Your task to perform on an android device: change the clock display to analog Image 0: 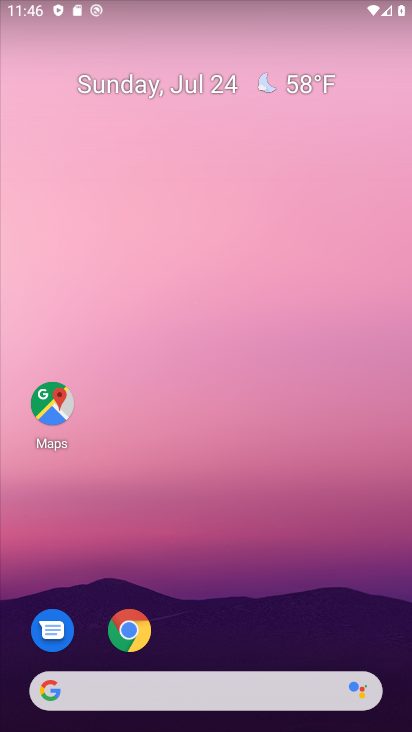
Step 0: drag from (260, 651) to (259, 54)
Your task to perform on an android device: change the clock display to analog Image 1: 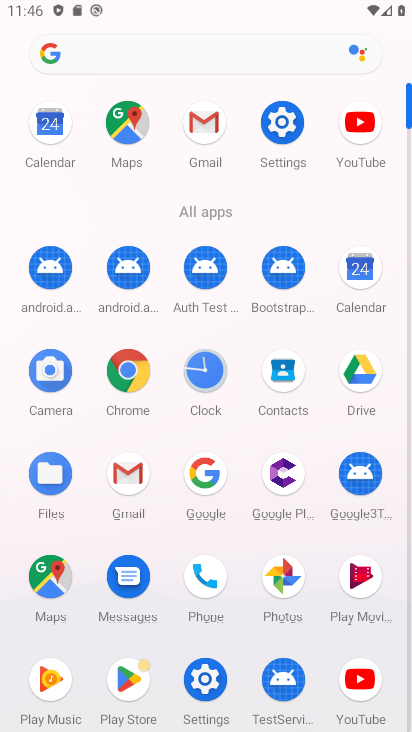
Step 1: click (206, 363)
Your task to perform on an android device: change the clock display to analog Image 2: 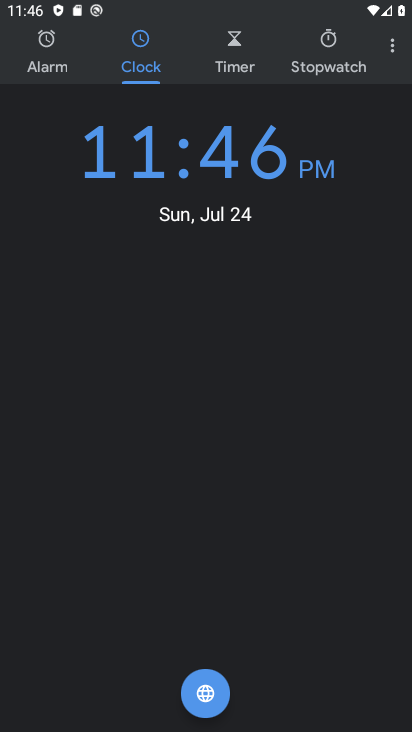
Step 2: click (387, 67)
Your task to perform on an android device: change the clock display to analog Image 3: 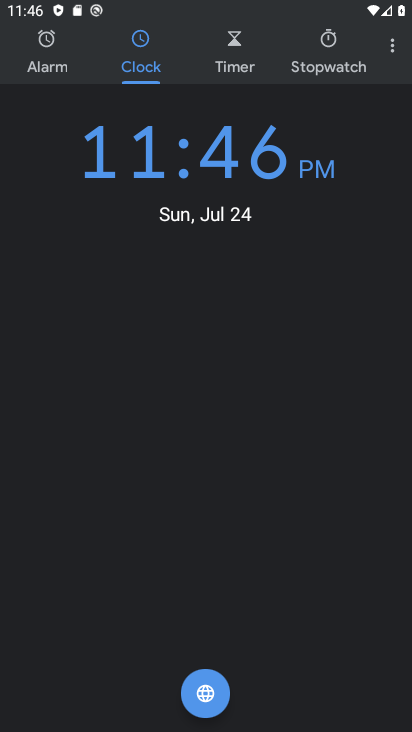
Step 3: click (397, 49)
Your task to perform on an android device: change the clock display to analog Image 4: 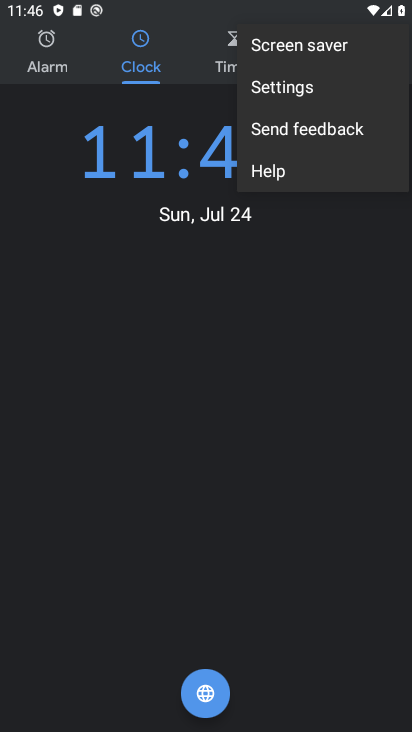
Step 4: click (341, 88)
Your task to perform on an android device: change the clock display to analog Image 5: 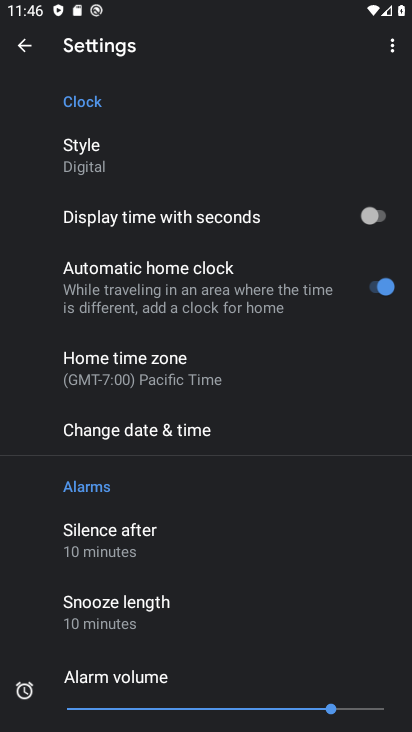
Step 5: click (153, 168)
Your task to perform on an android device: change the clock display to analog Image 6: 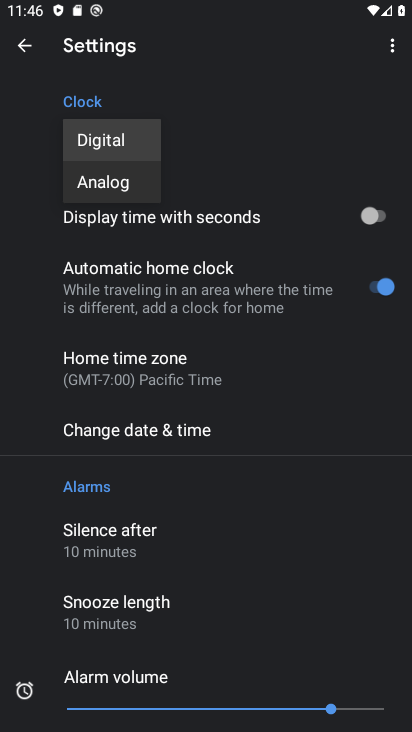
Step 6: click (134, 181)
Your task to perform on an android device: change the clock display to analog Image 7: 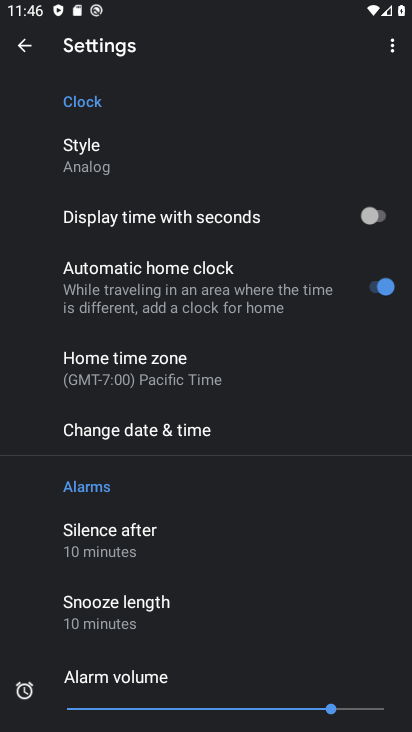
Step 7: task complete